Your task to perform on an android device: Play the last video I watched on Youtube Image 0: 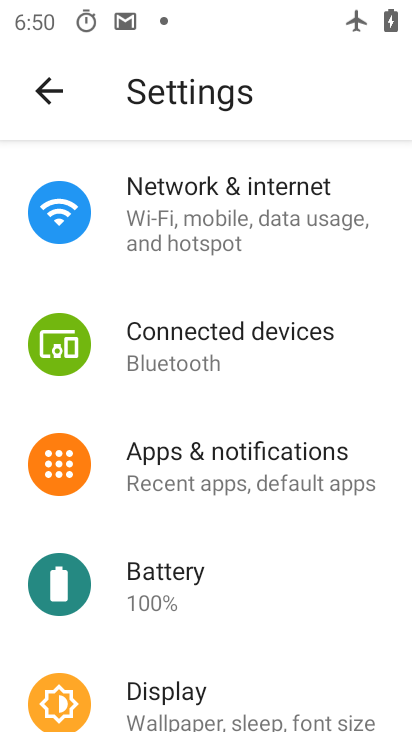
Step 0: press home button
Your task to perform on an android device: Play the last video I watched on Youtube Image 1: 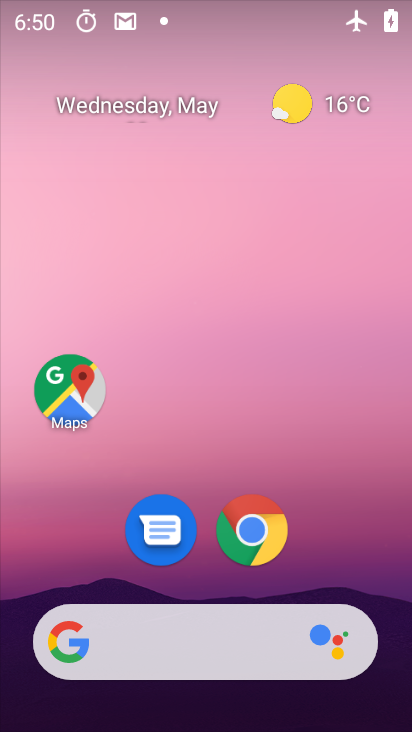
Step 1: drag from (202, 581) to (281, 181)
Your task to perform on an android device: Play the last video I watched on Youtube Image 2: 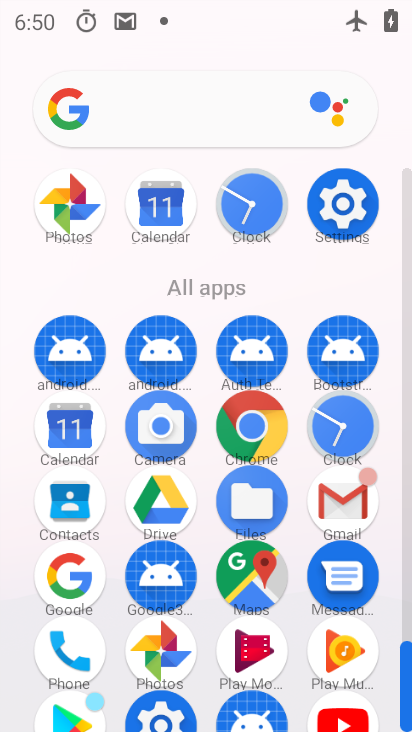
Step 2: click (342, 697)
Your task to perform on an android device: Play the last video I watched on Youtube Image 3: 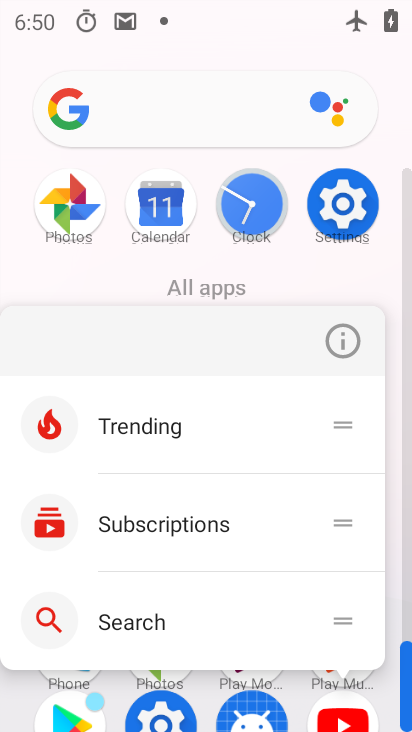
Step 3: click (330, 716)
Your task to perform on an android device: Play the last video I watched on Youtube Image 4: 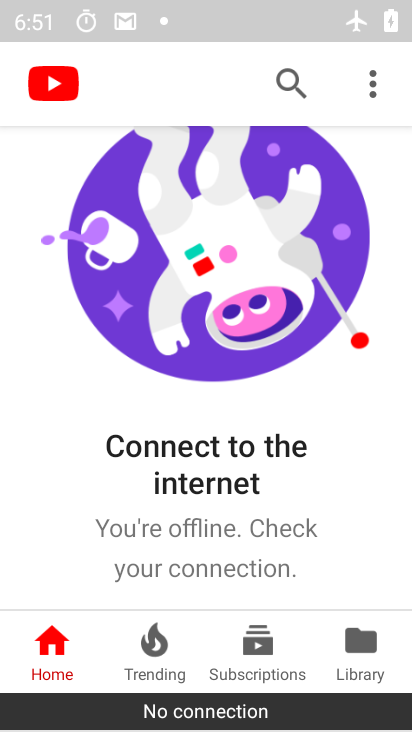
Step 4: click (147, 641)
Your task to perform on an android device: Play the last video I watched on Youtube Image 5: 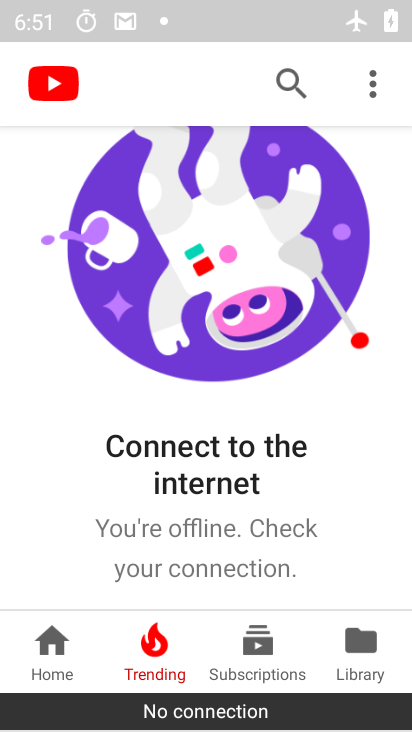
Step 5: task complete